Your task to perform on an android device: turn off translation in the chrome app Image 0: 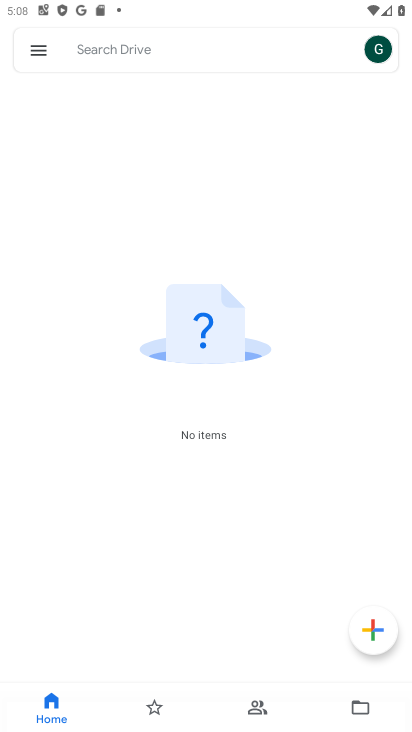
Step 0: press home button
Your task to perform on an android device: turn off translation in the chrome app Image 1: 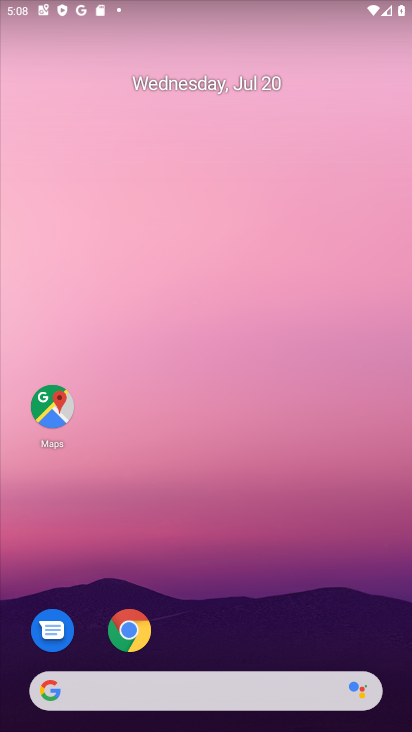
Step 1: click (131, 630)
Your task to perform on an android device: turn off translation in the chrome app Image 2: 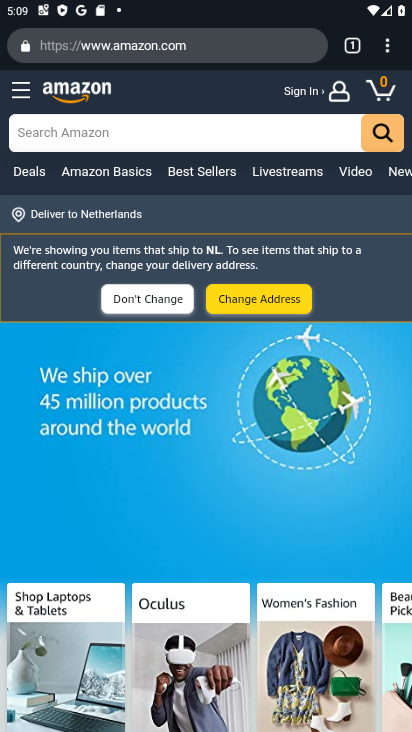
Step 2: click (389, 48)
Your task to perform on an android device: turn off translation in the chrome app Image 3: 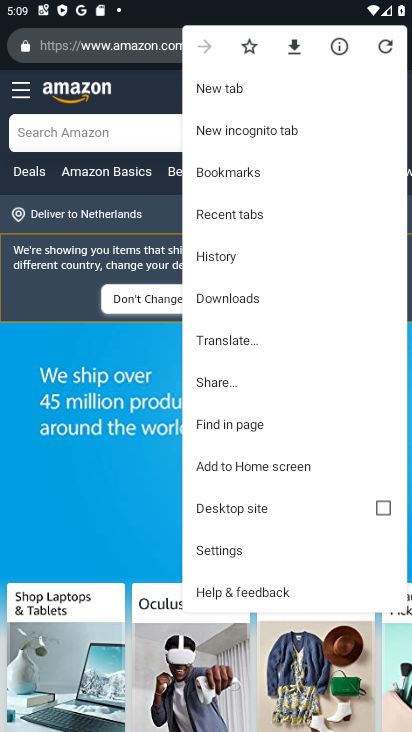
Step 3: click (229, 550)
Your task to perform on an android device: turn off translation in the chrome app Image 4: 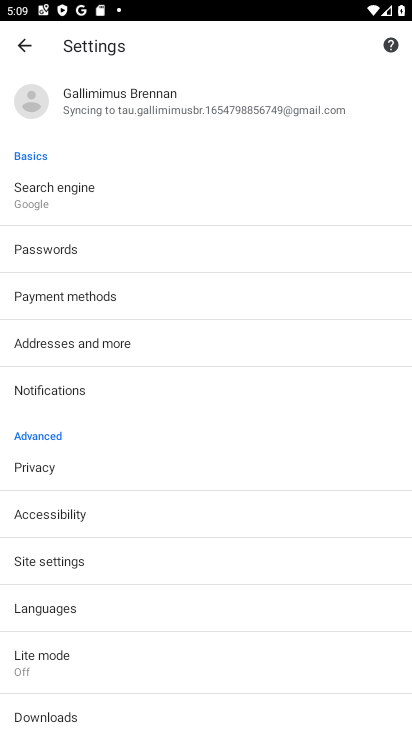
Step 4: click (56, 609)
Your task to perform on an android device: turn off translation in the chrome app Image 5: 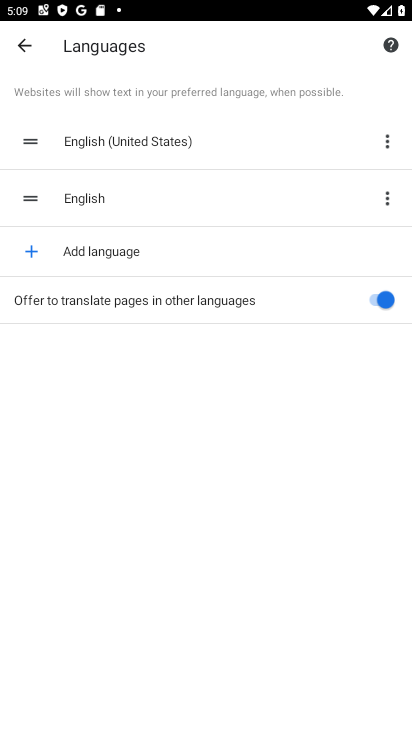
Step 5: click (378, 301)
Your task to perform on an android device: turn off translation in the chrome app Image 6: 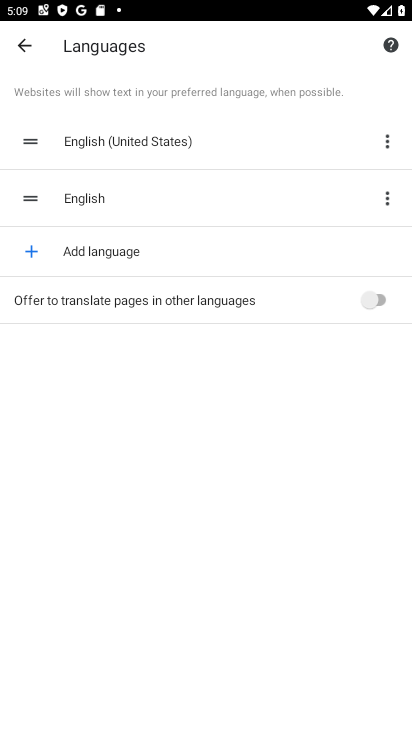
Step 6: task complete